Your task to perform on an android device: Open the stopwatch Image 0: 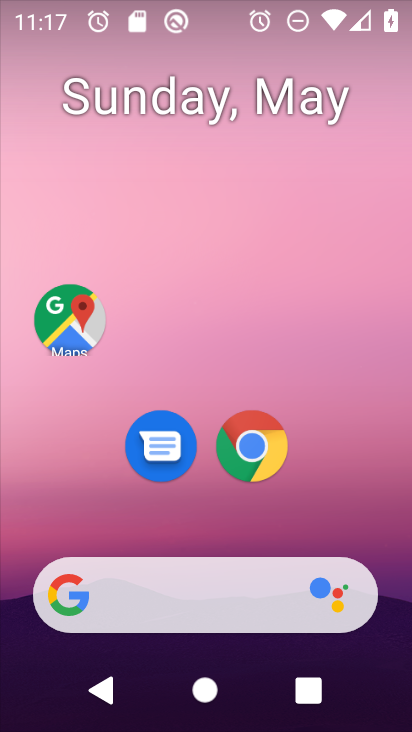
Step 0: drag from (337, 532) to (173, 14)
Your task to perform on an android device: Open the stopwatch Image 1: 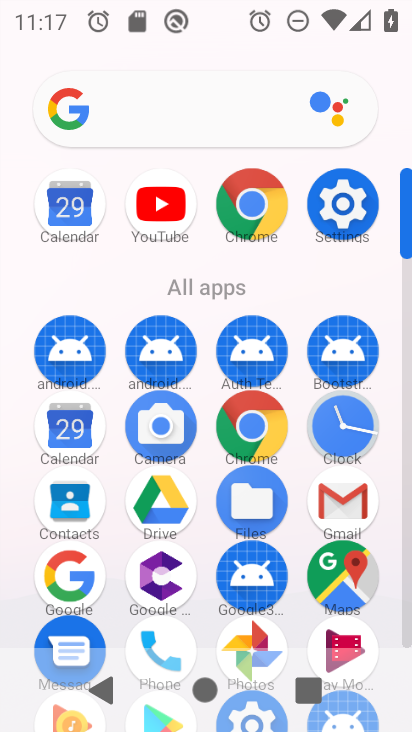
Step 1: drag from (12, 598) to (8, 208)
Your task to perform on an android device: Open the stopwatch Image 2: 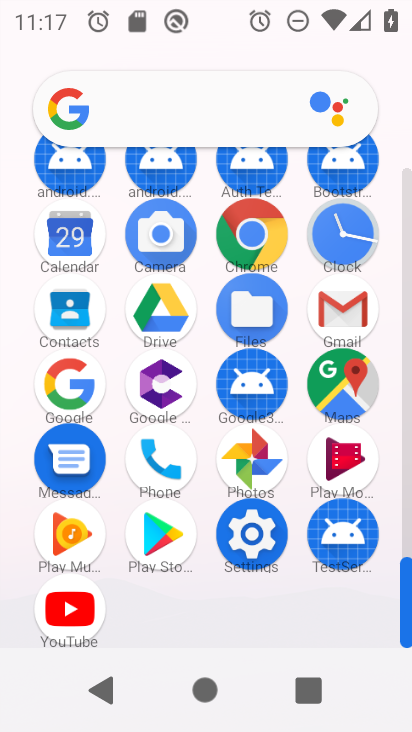
Step 2: click (346, 231)
Your task to perform on an android device: Open the stopwatch Image 3: 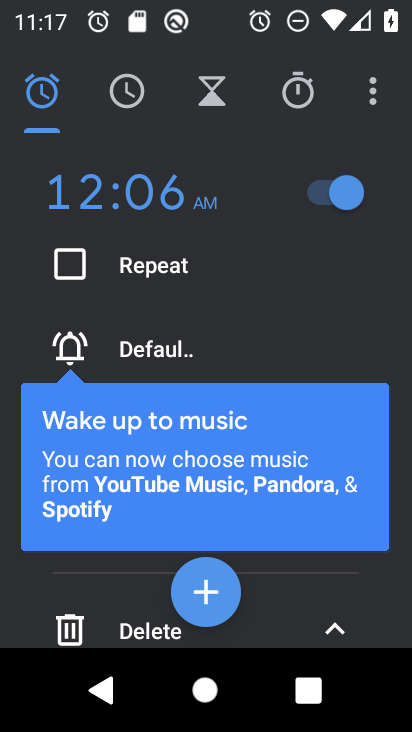
Step 3: click (115, 82)
Your task to perform on an android device: Open the stopwatch Image 4: 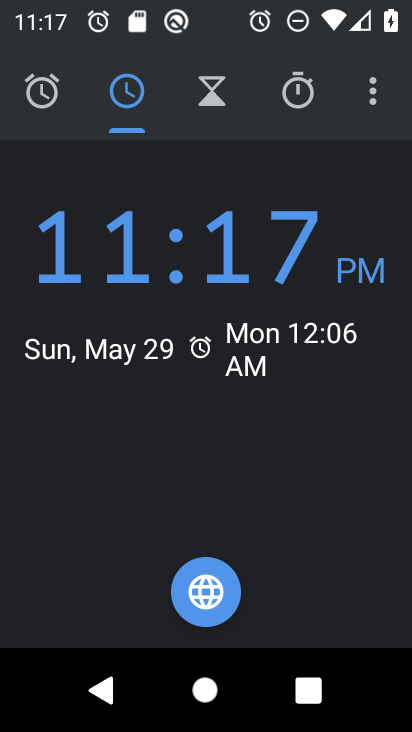
Step 4: click (57, 85)
Your task to perform on an android device: Open the stopwatch Image 5: 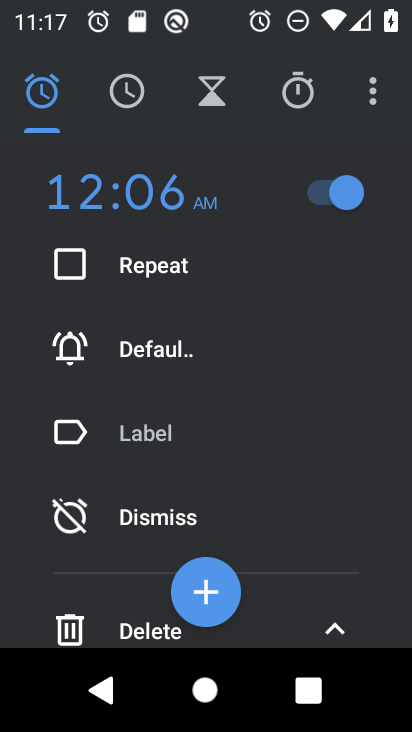
Step 5: click (314, 88)
Your task to perform on an android device: Open the stopwatch Image 6: 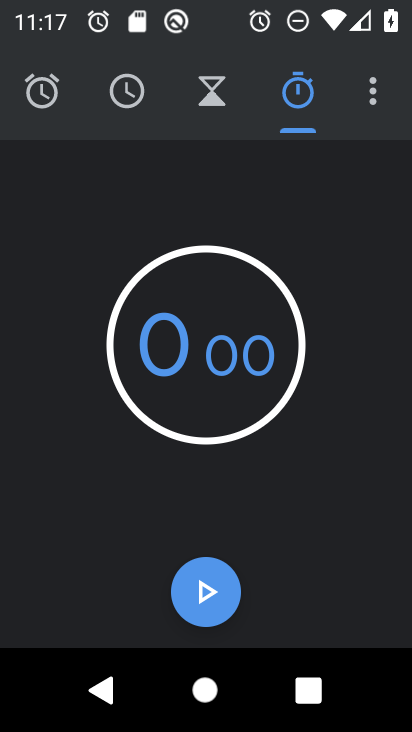
Step 6: task complete